Your task to perform on an android device: delete location history Image 0: 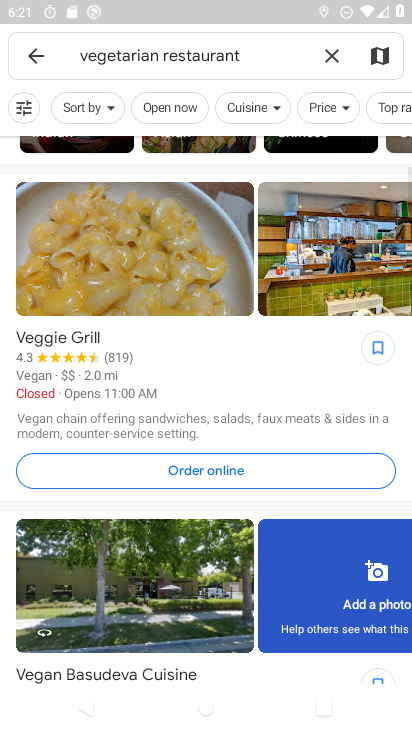
Step 0: press home button
Your task to perform on an android device: delete location history Image 1: 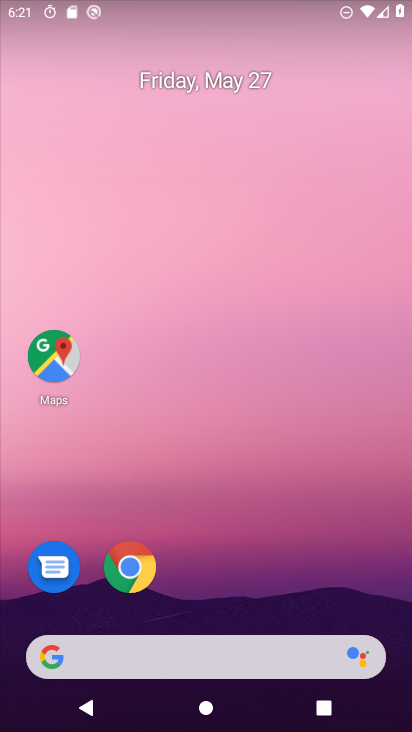
Step 1: drag from (275, 564) to (181, 29)
Your task to perform on an android device: delete location history Image 2: 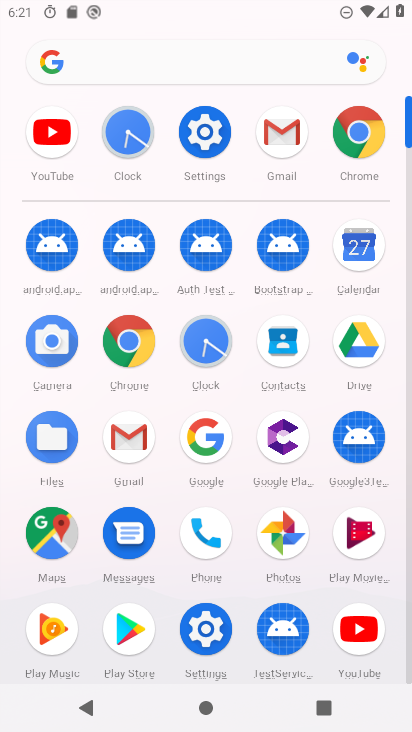
Step 2: click (204, 133)
Your task to perform on an android device: delete location history Image 3: 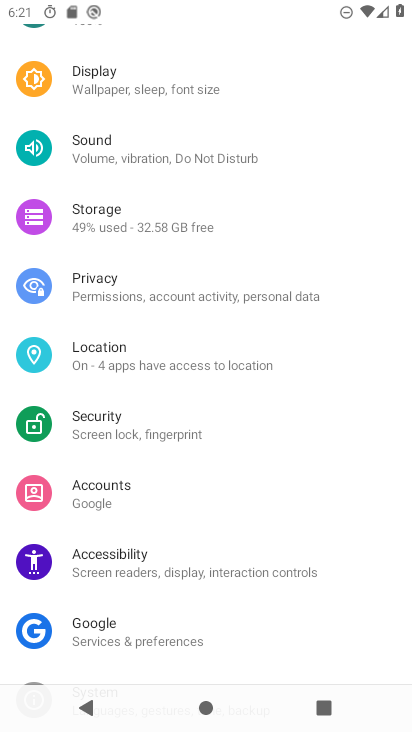
Step 3: task complete